Your task to perform on an android device: turn on showing notifications on the lock screen Image 0: 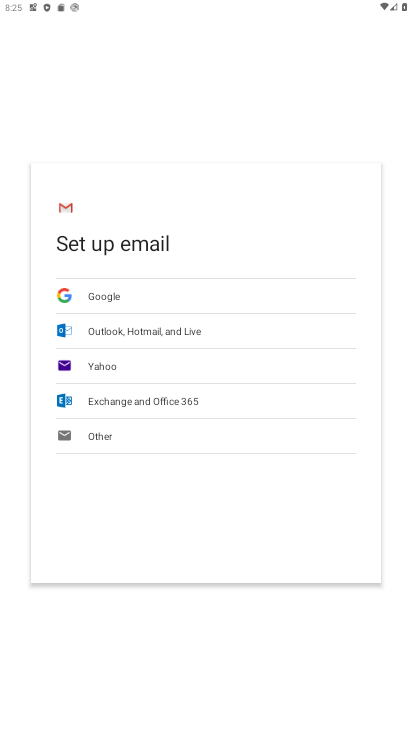
Step 0: press home button
Your task to perform on an android device: turn on showing notifications on the lock screen Image 1: 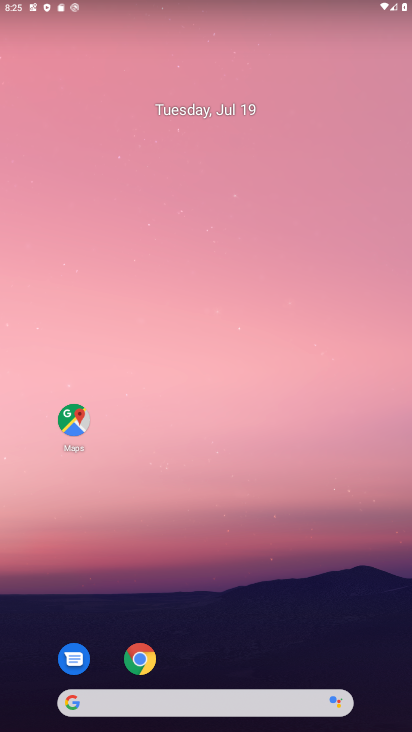
Step 1: drag from (150, 687) to (320, 164)
Your task to perform on an android device: turn on showing notifications on the lock screen Image 2: 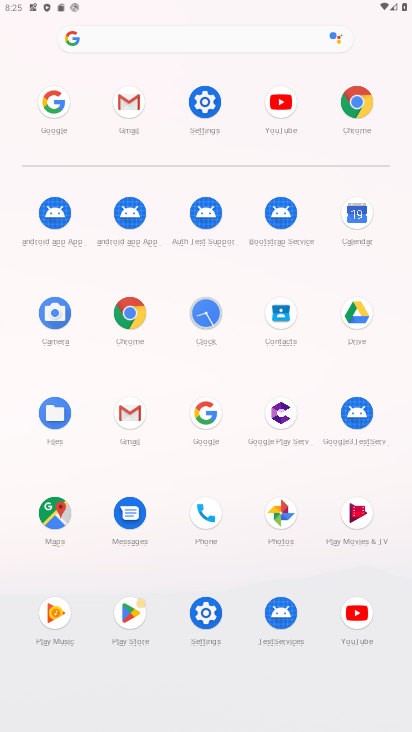
Step 2: click (201, 108)
Your task to perform on an android device: turn on showing notifications on the lock screen Image 3: 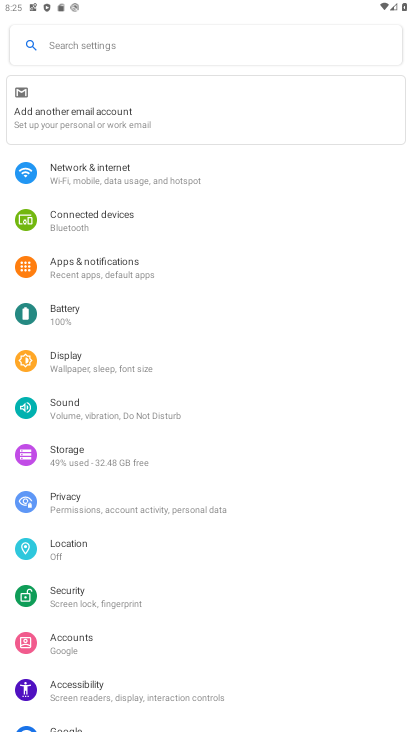
Step 3: click (81, 513)
Your task to perform on an android device: turn on showing notifications on the lock screen Image 4: 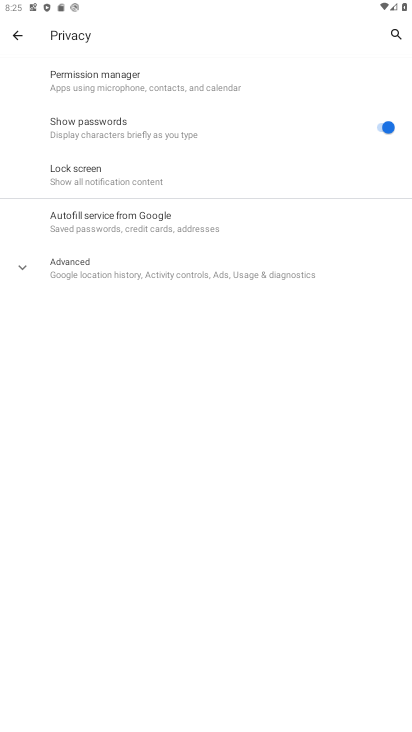
Step 4: click (134, 177)
Your task to perform on an android device: turn on showing notifications on the lock screen Image 5: 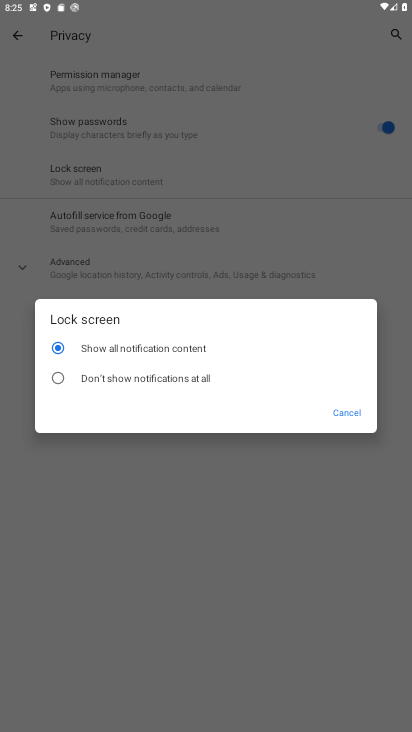
Step 5: click (355, 419)
Your task to perform on an android device: turn on showing notifications on the lock screen Image 6: 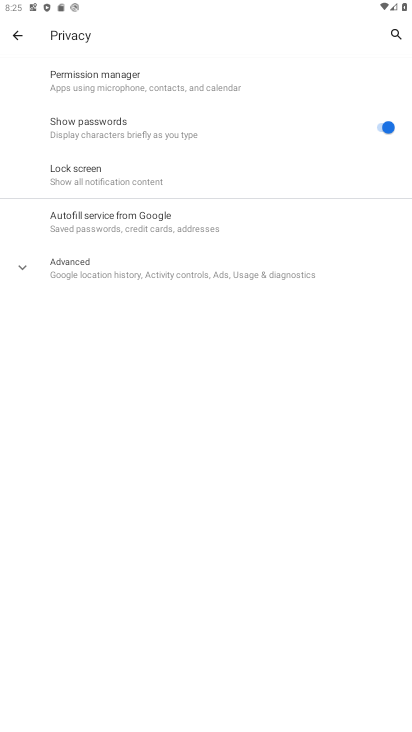
Step 6: task complete